Your task to perform on an android device: uninstall "Life360: Find Family & Friends" Image 0: 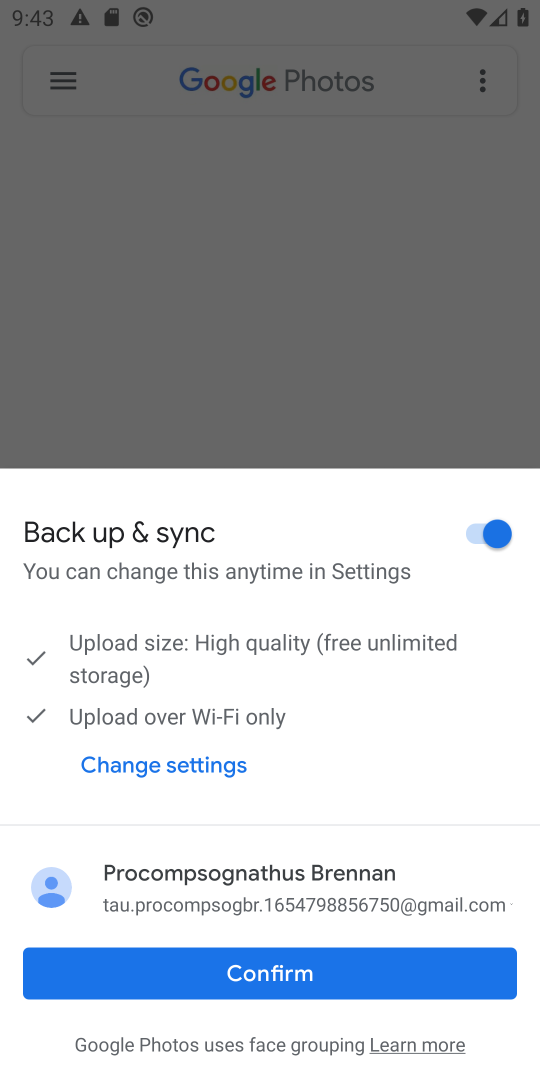
Step 0: press home button
Your task to perform on an android device: uninstall "Life360: Find Family & Friends" Image 1: 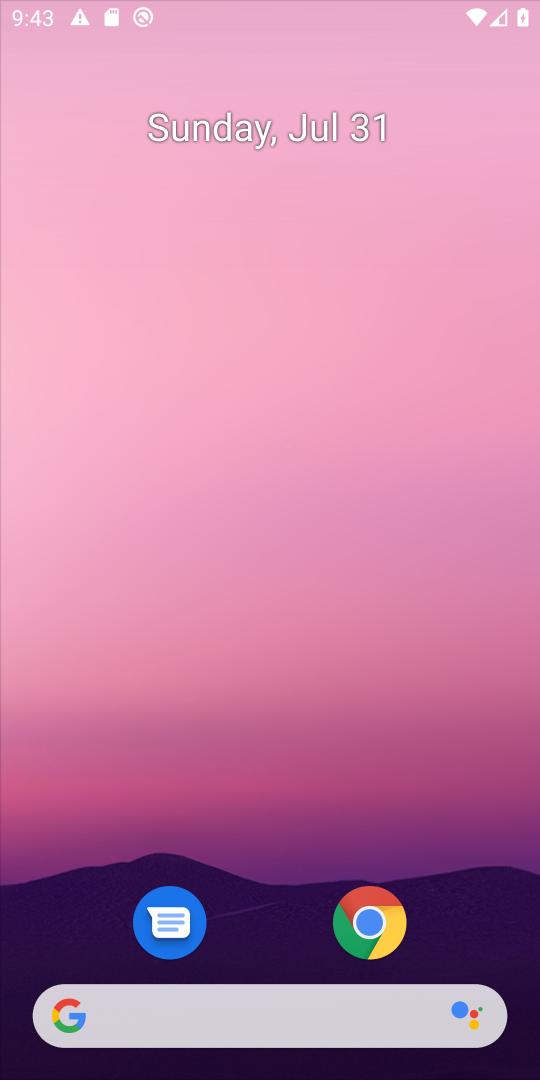
Step 1: press home button
Your task to perform on an android device: uninstall "Life360: Find Family & Friends" Image 2: 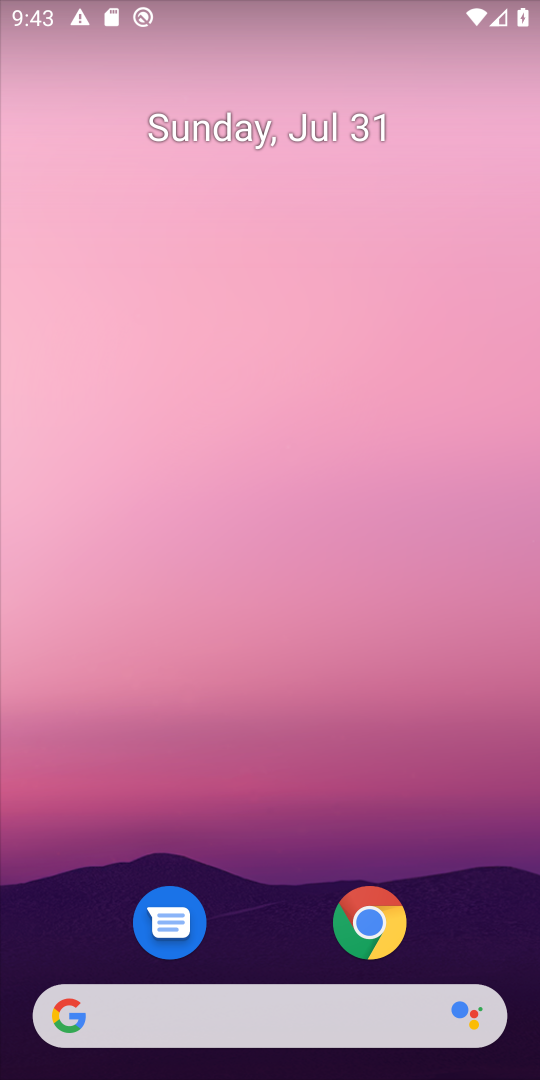
Step 2: drag from (269, 1025) to (293, 88)
Your task to perform on an android device: uninstall "Life360: Find Family & Friends" Image 3: 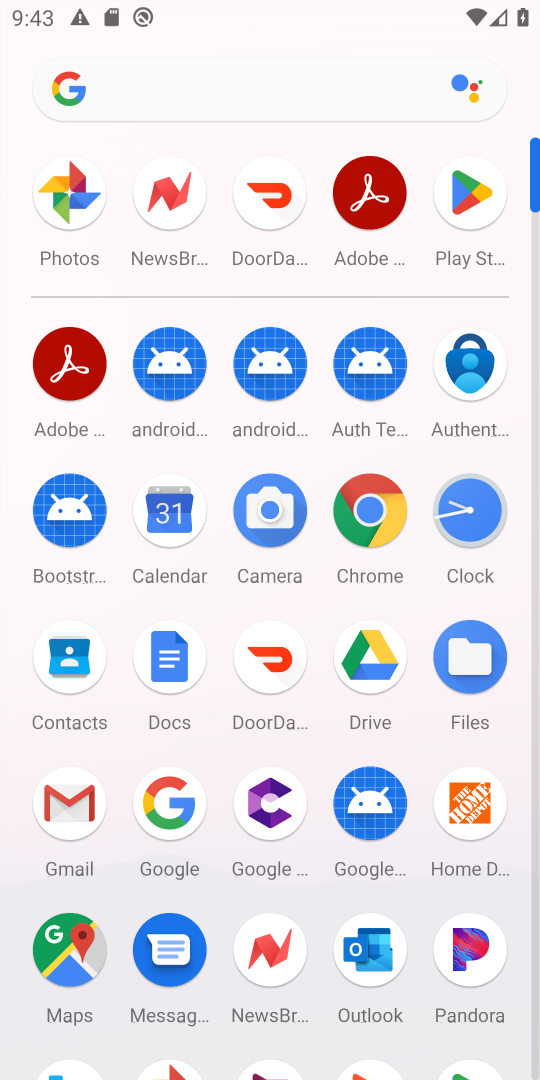
Step 3: drag from (322, 1024) to (359, 549)
Your task to perform on an android device: uninstall "Life360: Find Family & Friends" Image 4: 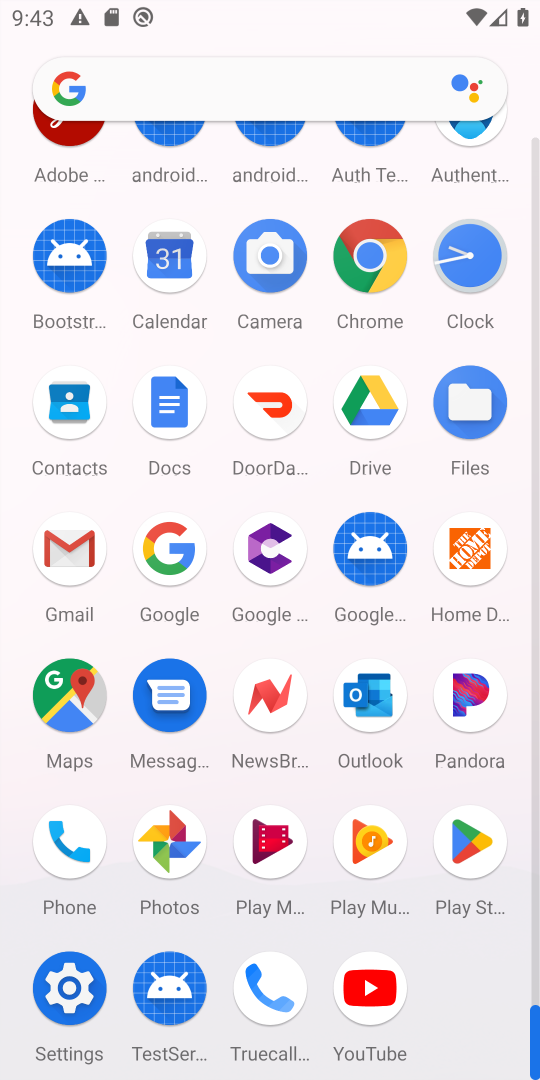
Step 4: click (465, 832)
Your task to perform on an android device: uninstall "Life360: Find Family & Friends" Image 5: 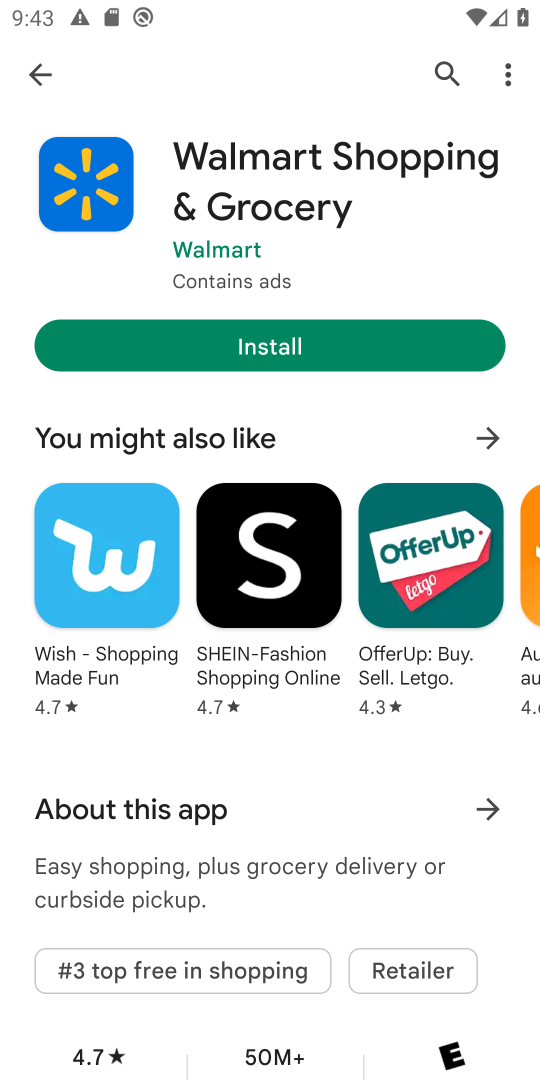
Step 5: click (439, 71)
Your task to perform on an android device: uninstall "Life360: Find Family & Friends" Image 6: 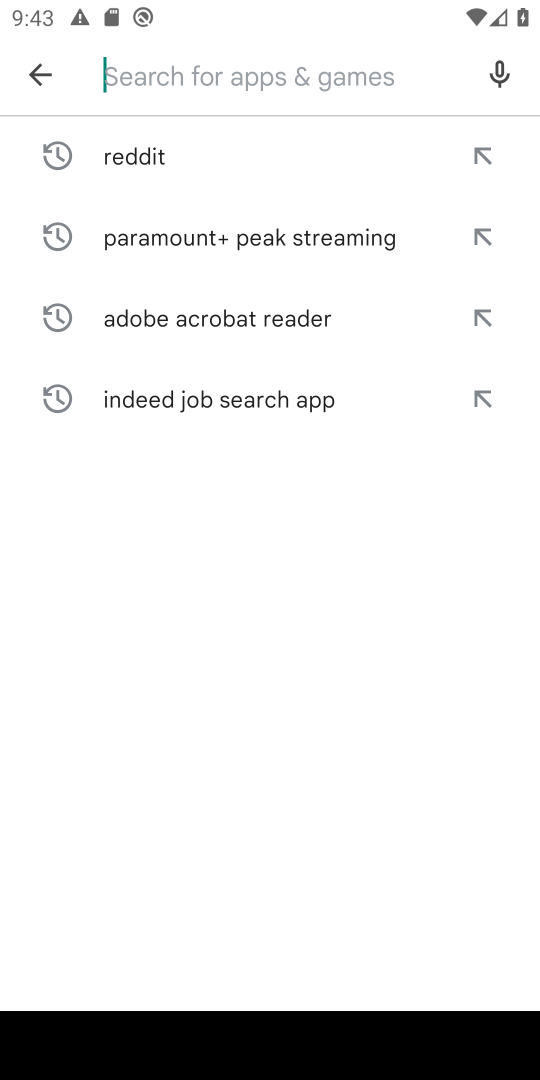
Step 6: type "Life360: Find Family & Friends"
Your task to perform on an android device: uninstall "Life360: Find Family & Friends" Image 7: 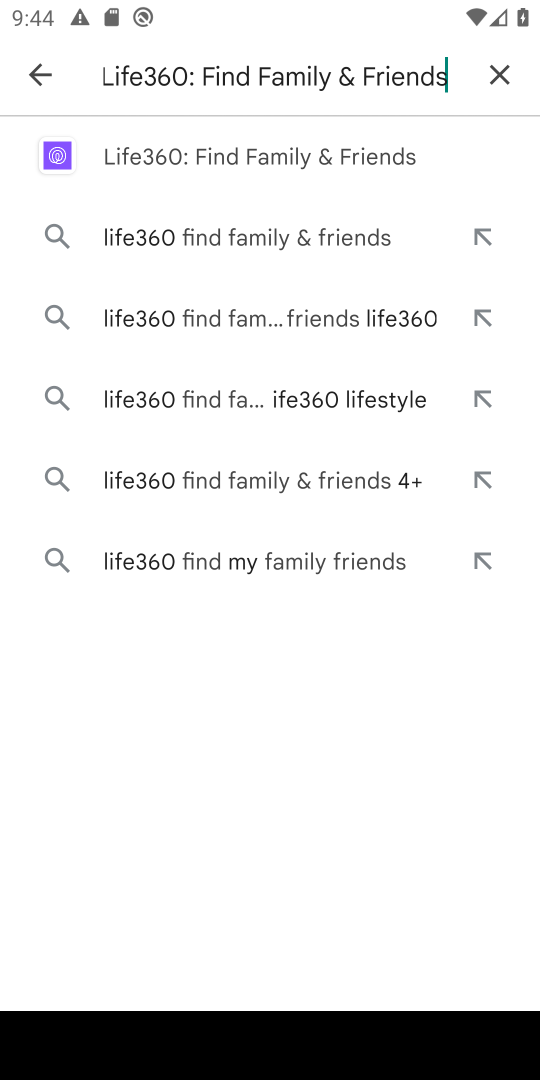
Step 7: click (304, 158)
Your task to perform on an android device: uninstall "Life360: Find Family & Friends" Image 8: 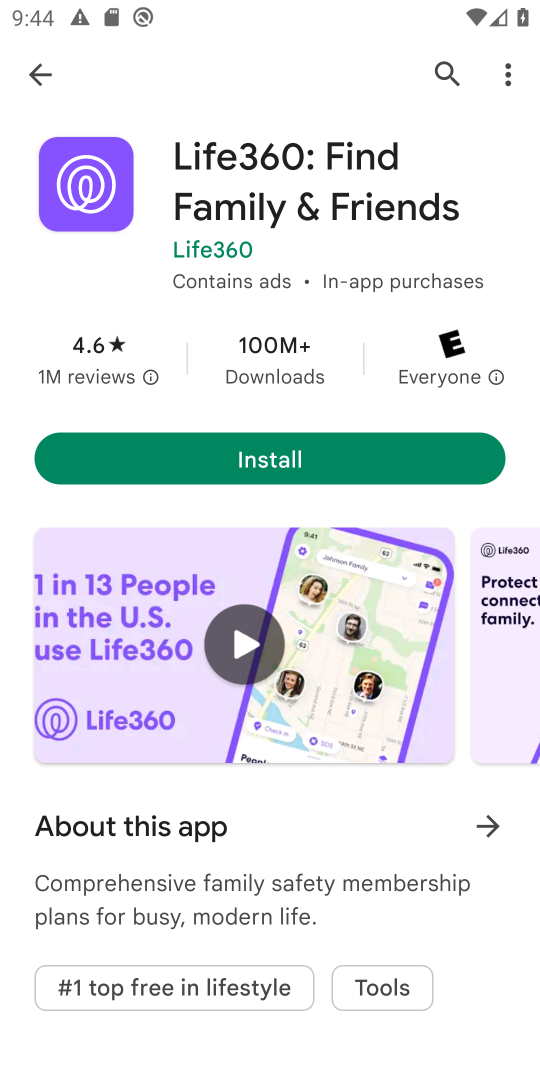
Step 8: task complete